Your task to perform on an android device: move an email to a new category in the gmail app Image 0: 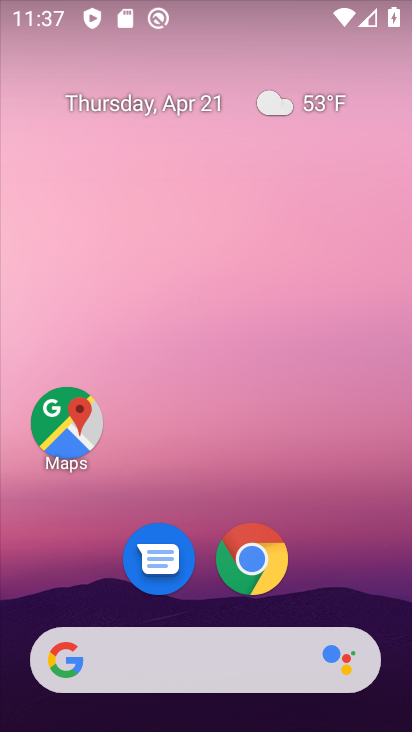
Step 0: drag from (364, 605) to (391, 4)
Your task to perform on an android device: move an email to a new category in the gmail app Image 1: 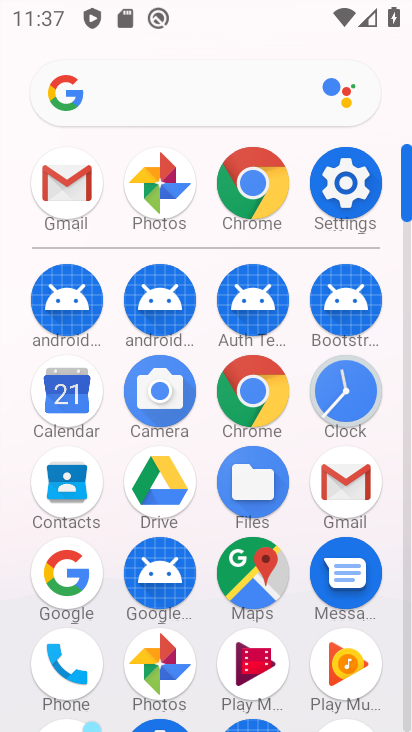
Step 1: click (66, 193)
Your task to perform on an android device: move an email to a new category in the gmail app Image 2: 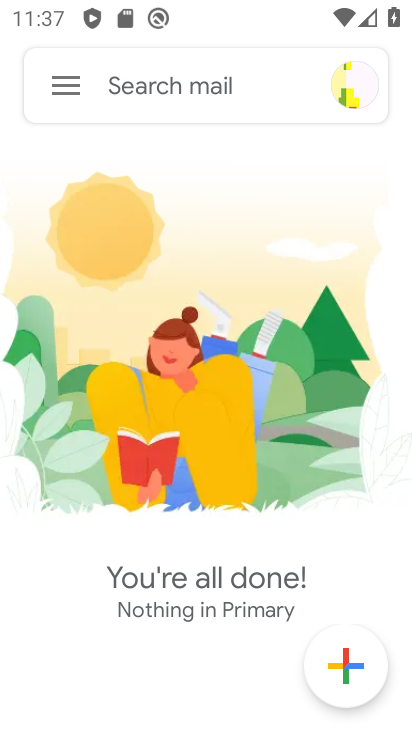
Step 2: click (53, 80)
Your task to perform on an android device: move an email to a new category in the gmail app Image 3: 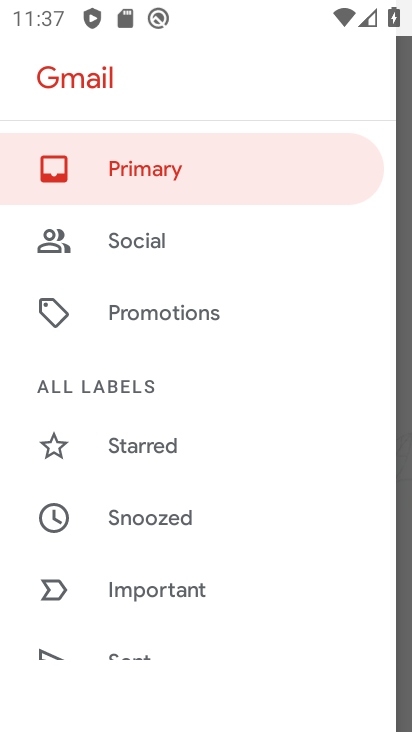
Step 3: drag from (222, 523) to (201, 321)
Your task to perform on an android device: move an email to a new category in the gmail app Image 4: 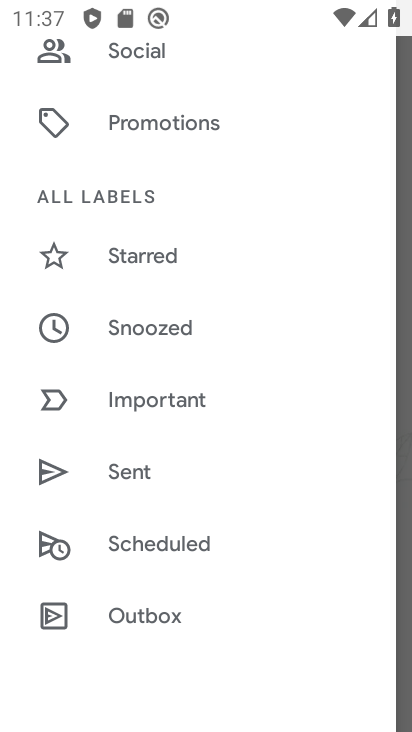
Step 4: click (142, 397)
Your task to perform on an android device: move an email to a new category in the gmail app Image 5: 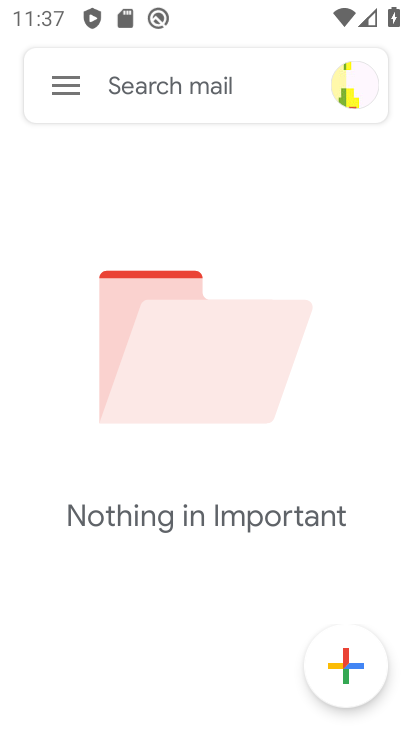
Step 5: drag from (200, 477) to (178, 300)
Your task to perform on an android device: move an email to a new category in the gmail app Image 6: 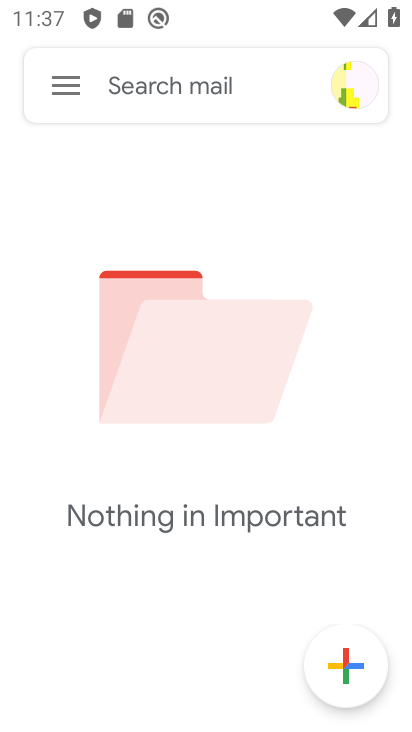
Step 6: click (73, 94)
Your task to perform on an android device: move an email to a new category in the gmail app Image 7: 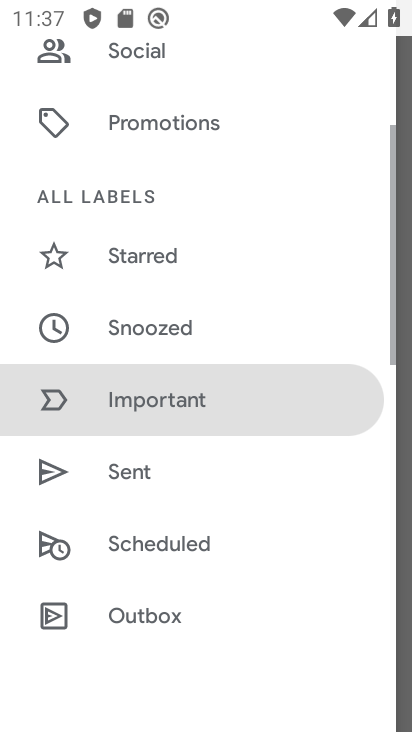
Step 7: drag from (211, 532) to (203, 224)
Your task to perform on an android device: move an email to a new category in the gmail app Image 8: 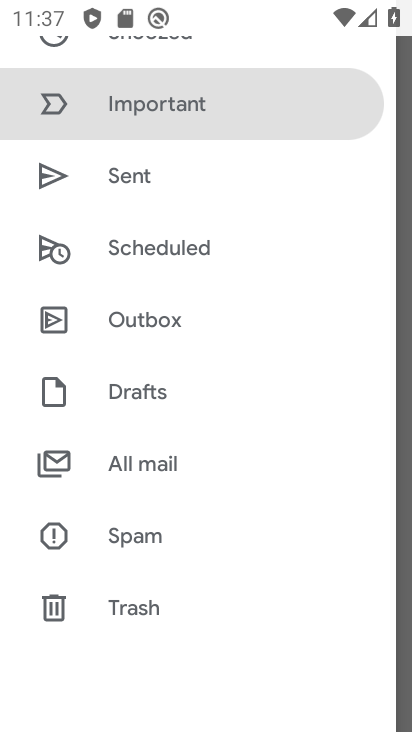
Step 8: click (155, 473)
Your task to perform on an android device: move an email to a new category in the gmail app Image 9: 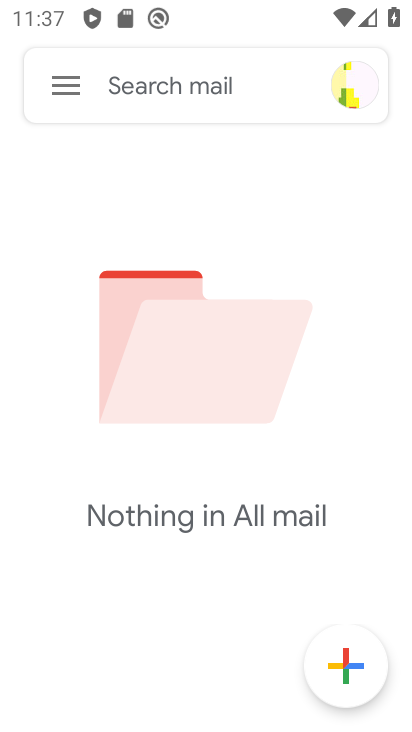
Step 9: task complete